Your task to perform on an android device: Search for "usb-c to usb-b" on bestbuy.com, select the first entry, and add it to the cart. Image 0: 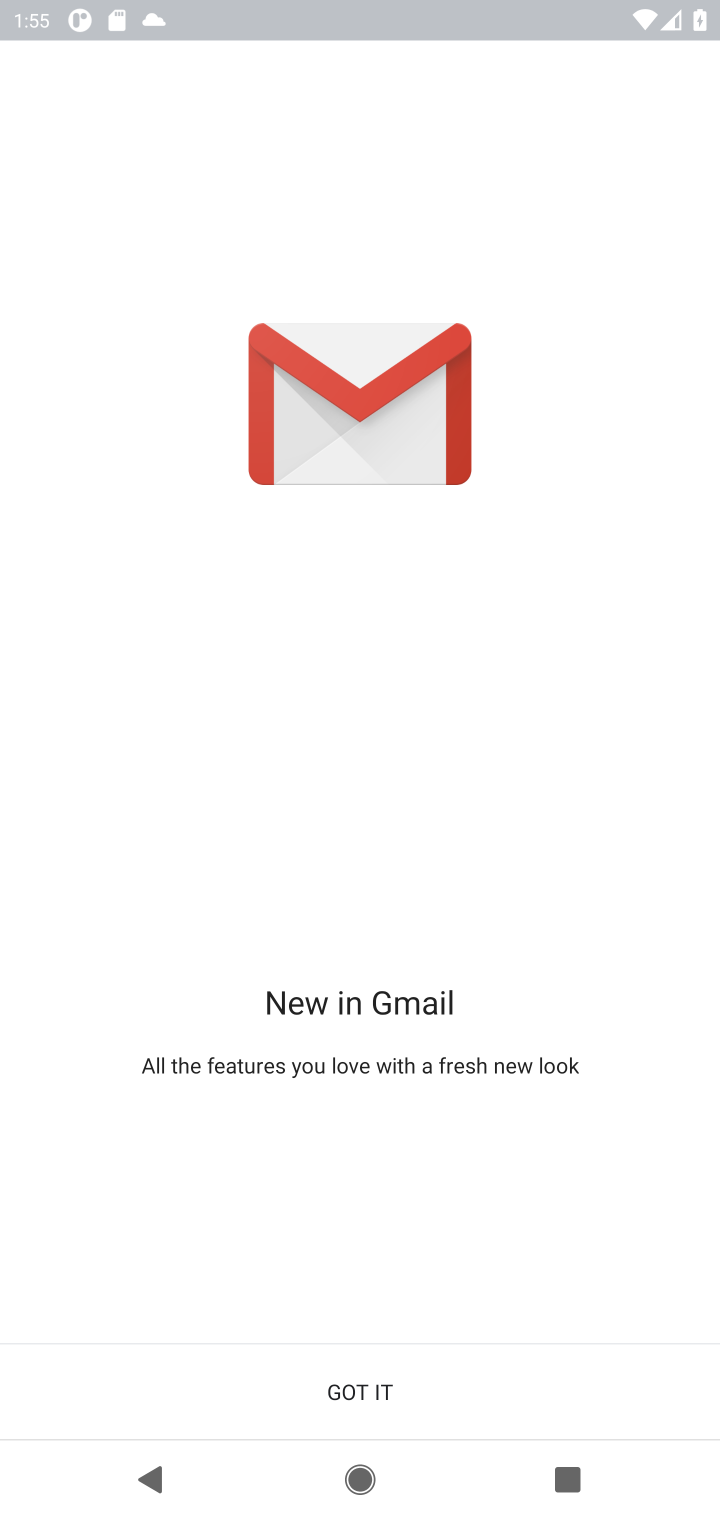
Step 0: press home button
Your task to perform on an android device: Search for "usb-c to usb-b" on bestbuy.com, select the first entry, and add it to the cart. Image 1: 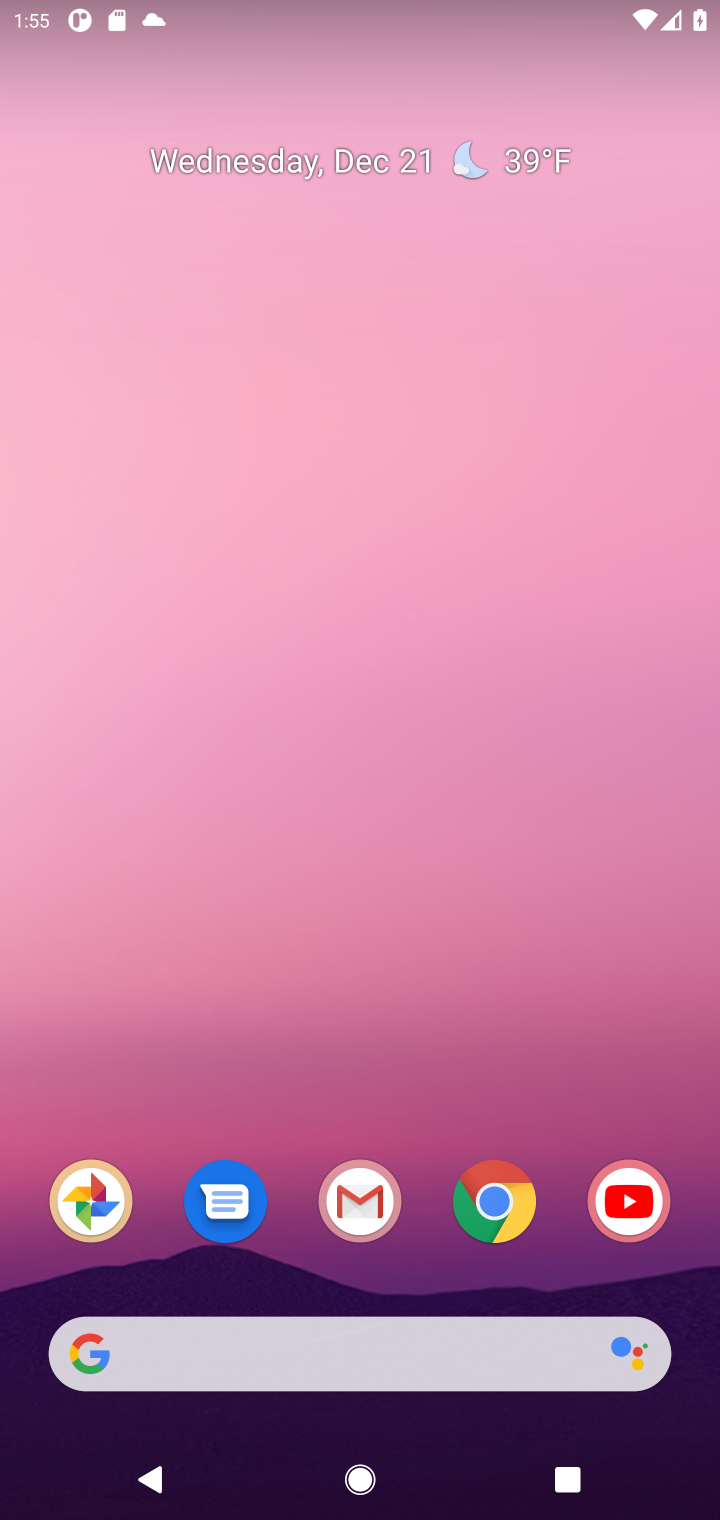
Step 1: click (497, 1206)
Your task to perform on an android device: Search for "usb-c to usb-b" on bestbuy.com, select the first entry, and add it to the cart. Image 2: 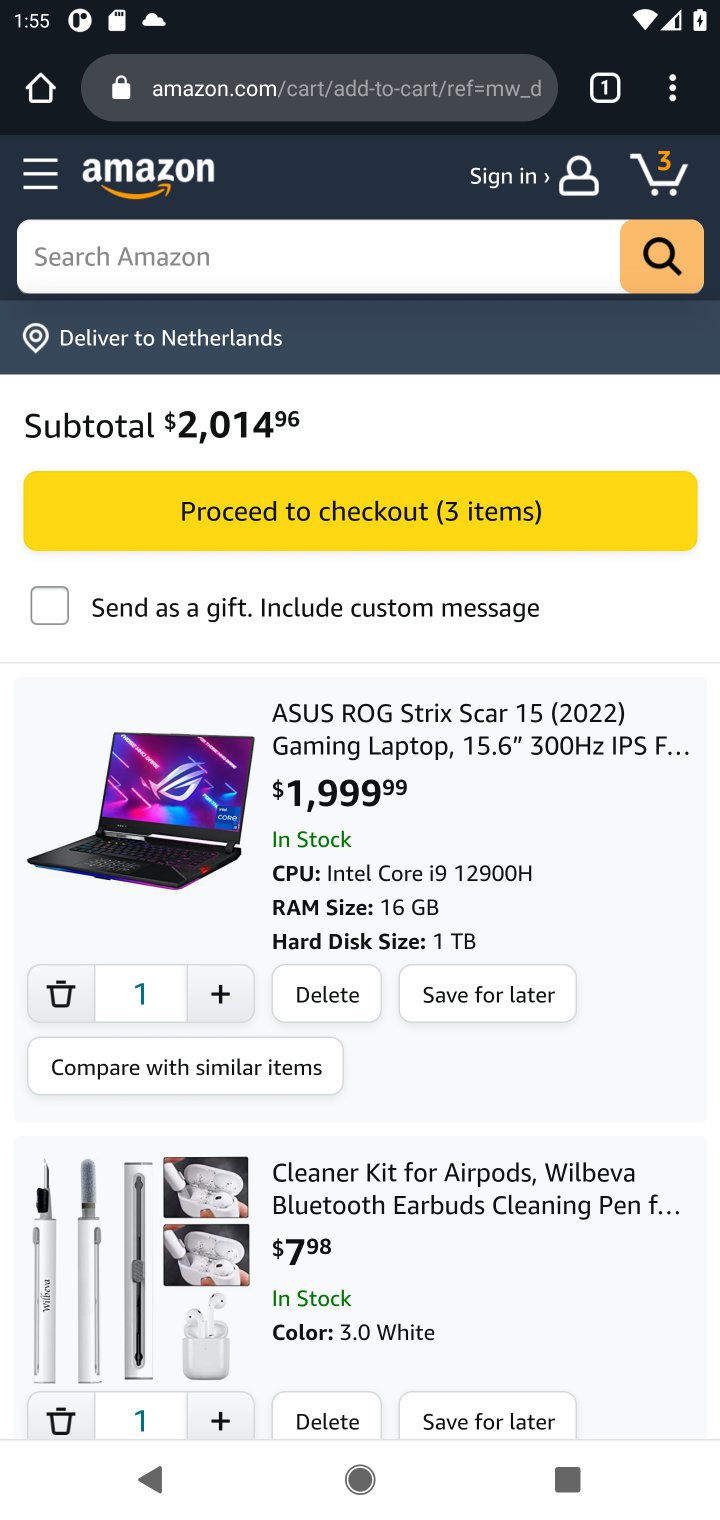
Step 2: click (276, 85)
Your task to perform on an android device: Search for "usb-c to usb-b" on bestbuy.com, select the first entry, and add it to the cart. Image 3: 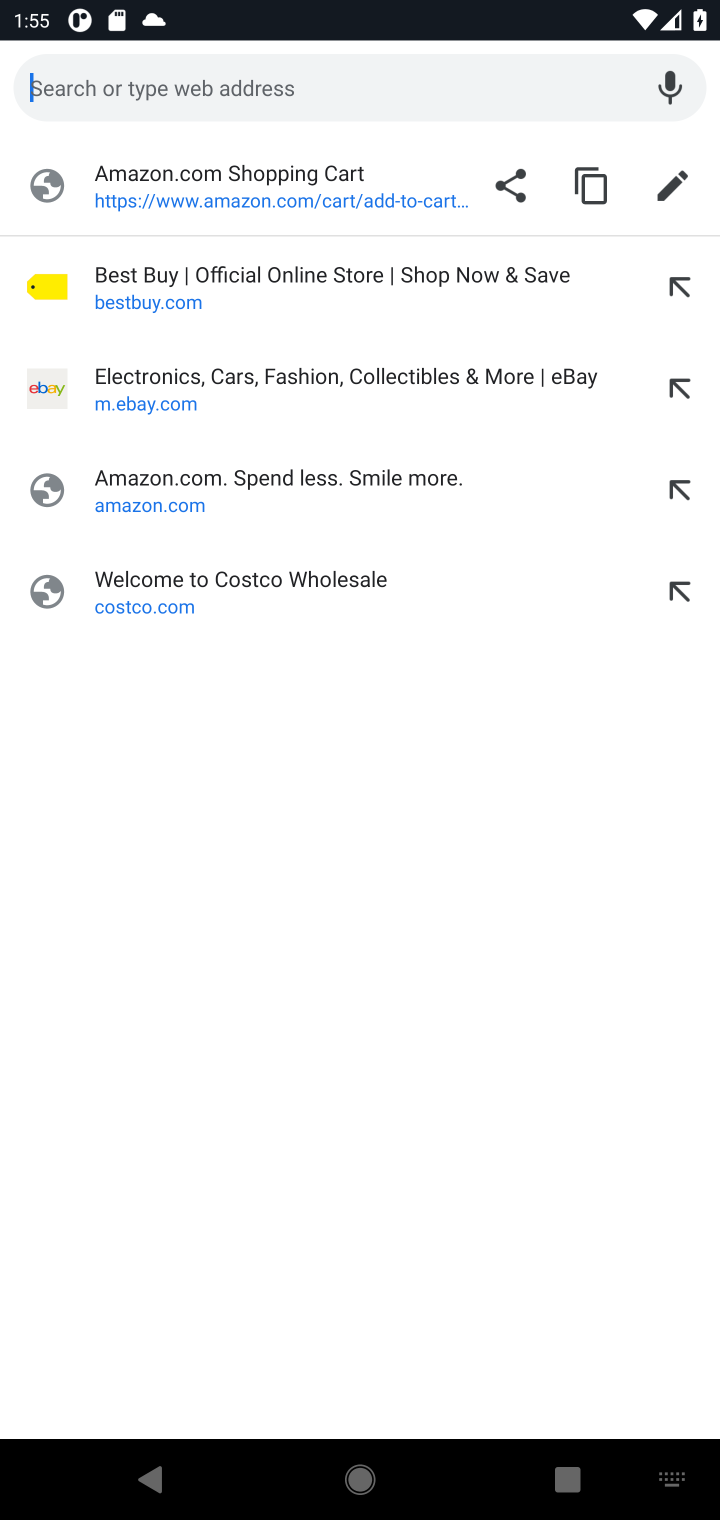
Step 3: click (162, 297)
Your task to perform on an android device: Search for "usb-c to usb-b" on bestbuy.com, select the first entry, and add it to the cart. Image 4: 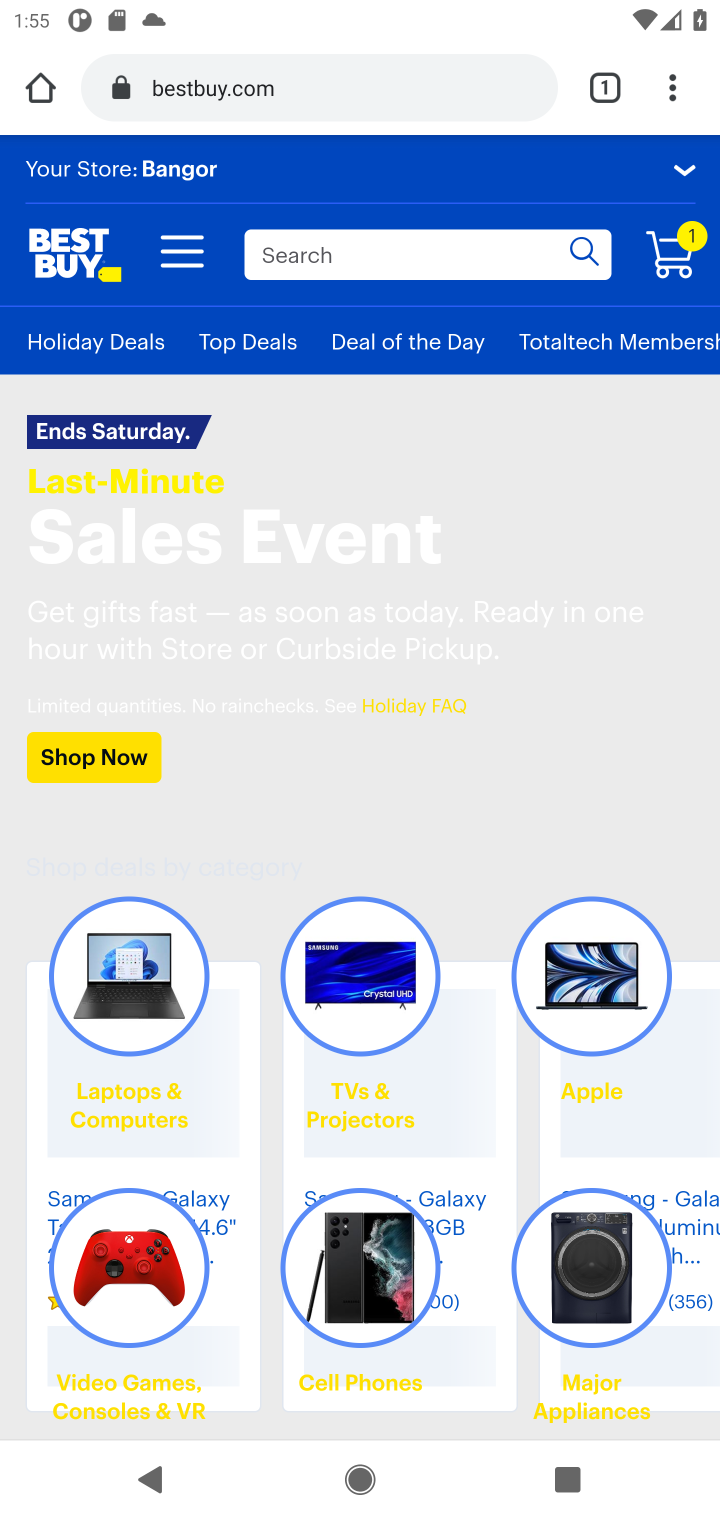
Step 4: click (298, 246)
Your task to perform on an android device: Search for "usb-c to usb-b" on bestbuy.com, select the first entry, and add it to the cart. Image 5: 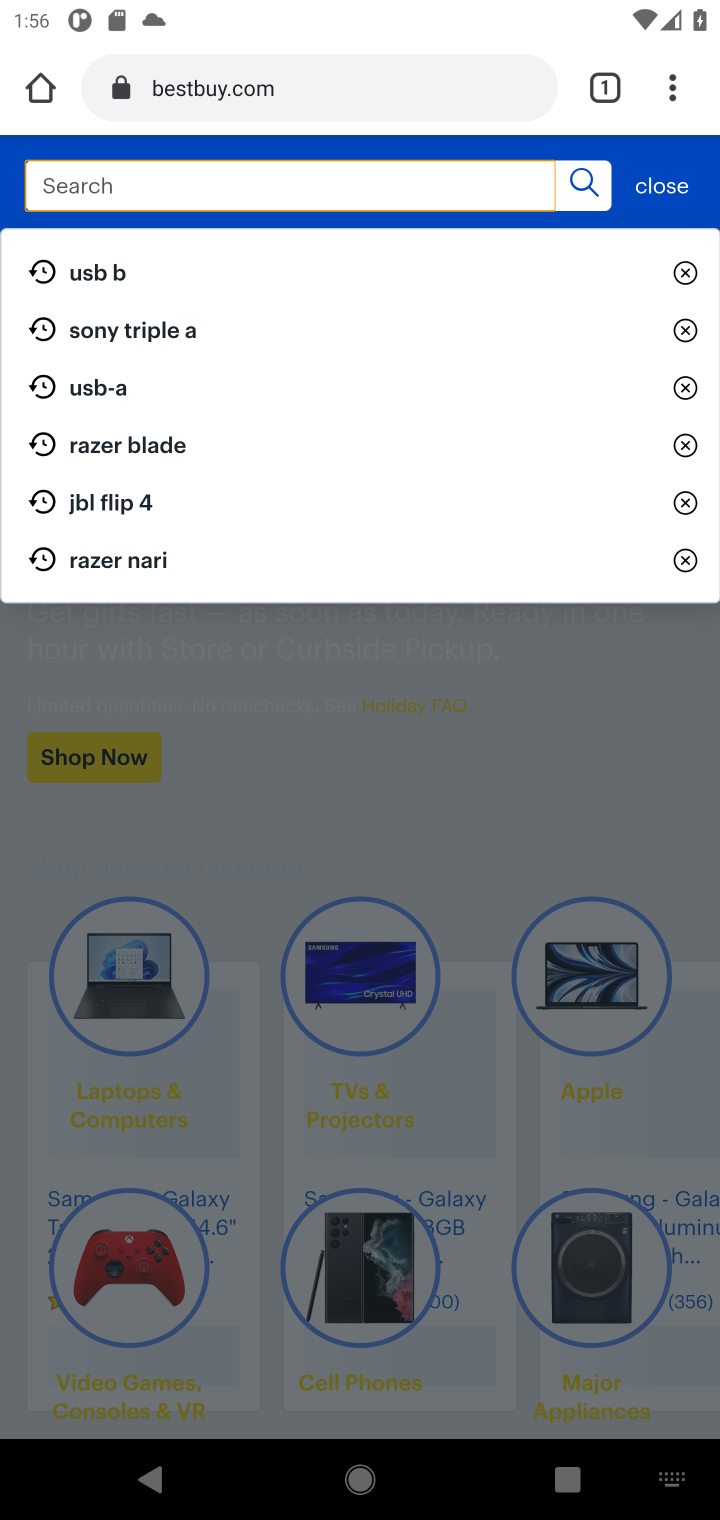
Step 5: type "usb-c to usb-b"
Your task to perform on an android device: Search for "usb-c to usb-b" on bestbuy.com, select the first entry, and add it to the cart. Image 6: 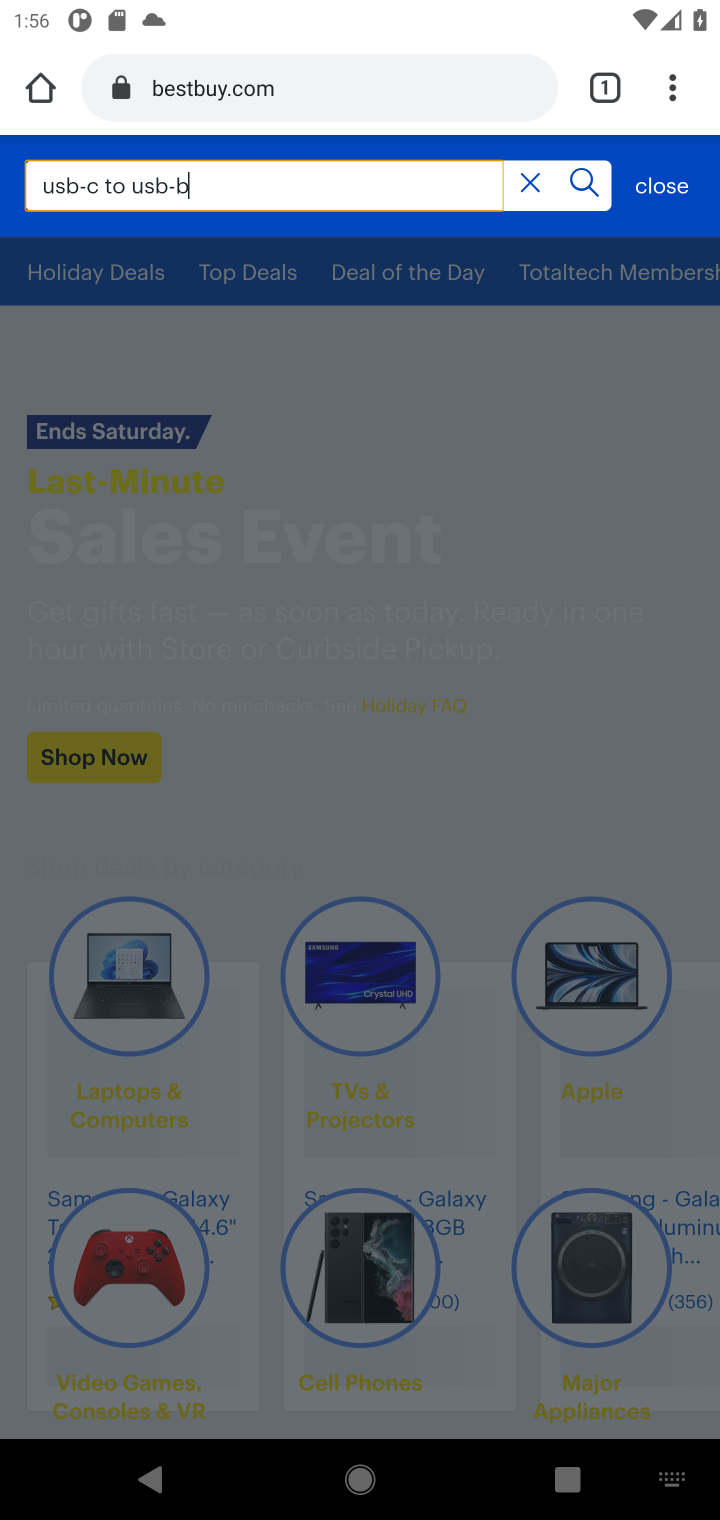
Step 6: click (584, 183)
Your task to perform on an android device: Search for "usb-c to usb-b" on bestbuy.com, select the first entry, and add it to the cart. Image 7: 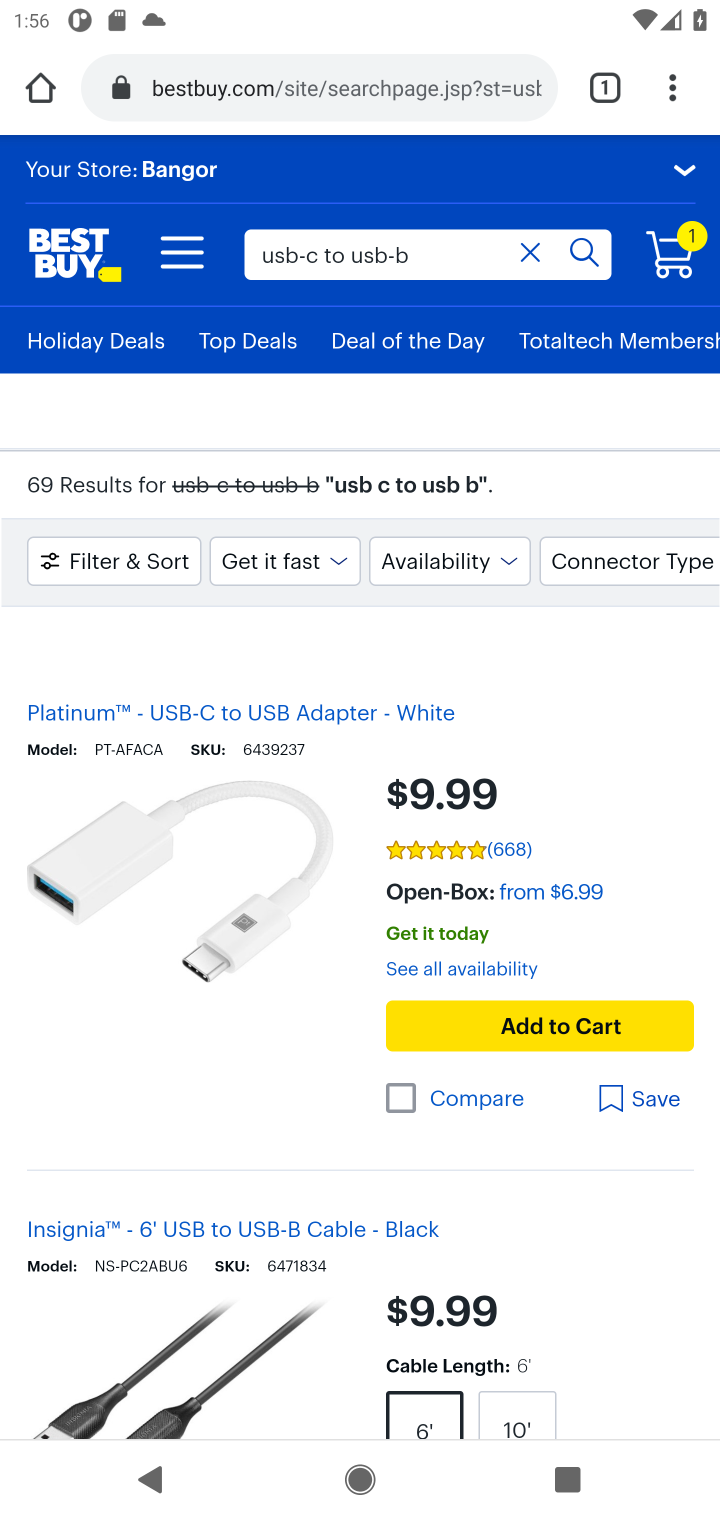
Step 7: task complete